Your task to perform on an android device: toggle priority inbox in the gmail app Image 0: 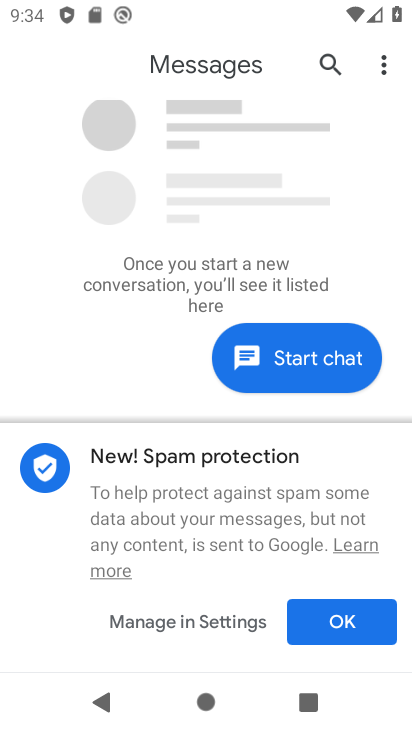
Step 0: press home button
Your task to perform on an android device: toggle priority inbox in the gmail app Image 1: 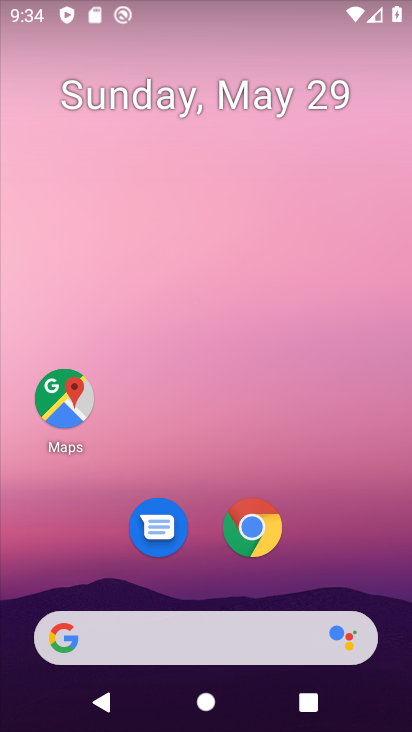
Step 1: drag from (334, 529) to (336, 161)
Your task to perform on an android device: toggle priority inbox in the gmail app Image 2: 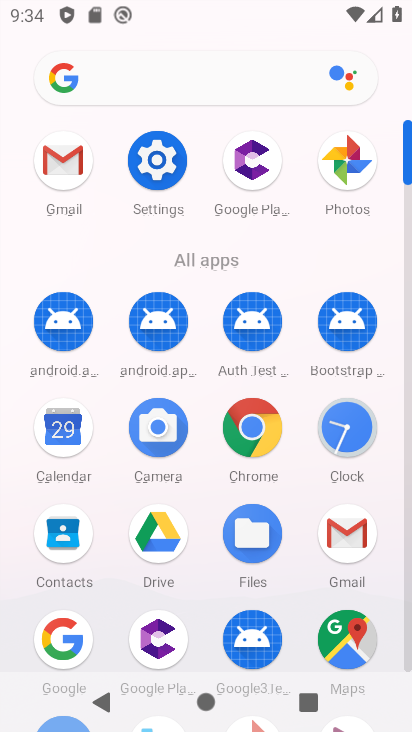
Step 2: click (73, 159)
Your task to perform on an android device: toggle priority inbox in the gmail app Image 3: 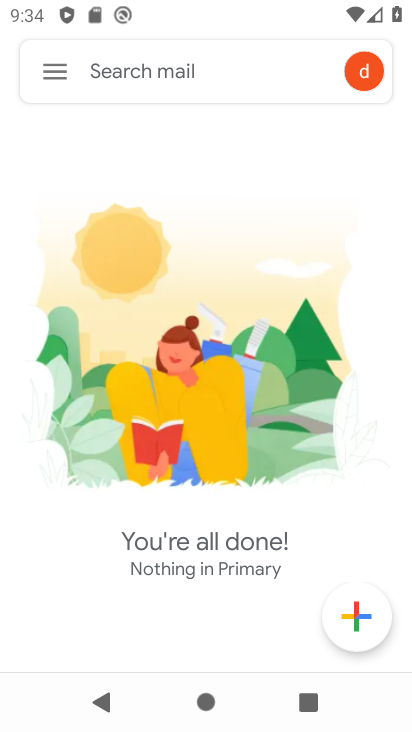
Step 3: click (73, 66)
Your task to perform on an android device: toggle priority inbox in the gmail app Image 4: 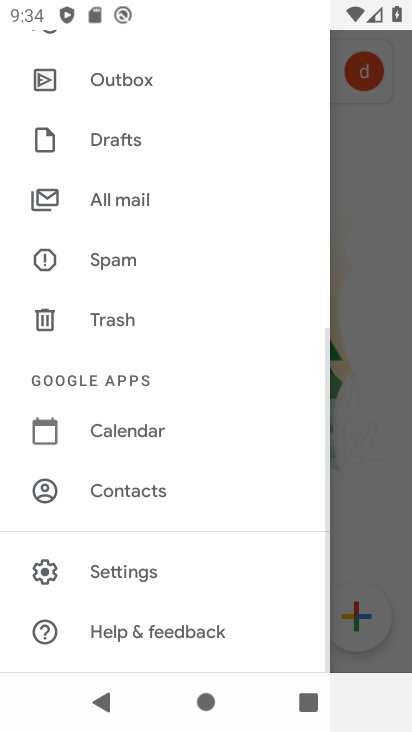
Step 4: click (147, 568)
Your task to perform on an android device: toggle priority inbox in the gmail app Image 5: 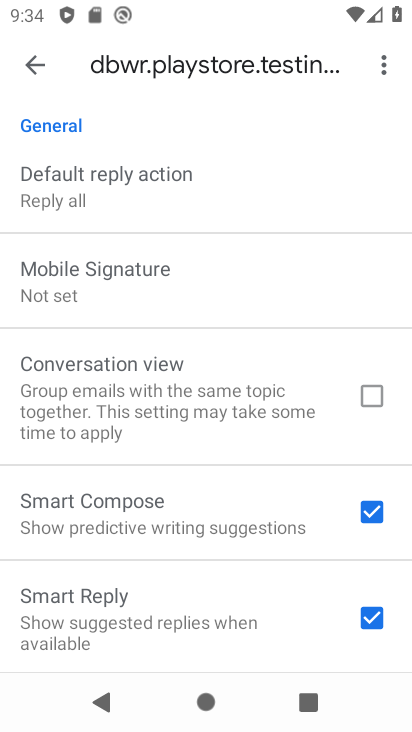
Step 5: drag from (211, 221) to (163, 641)
Your task to perform on an android device: toggle priority inbox in the gmail app Image 6: 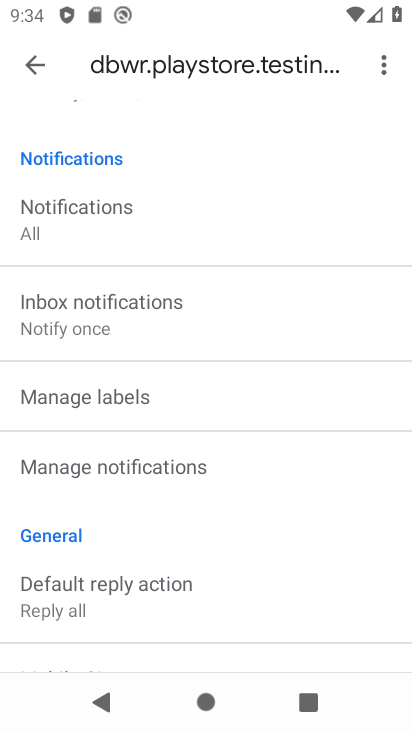
Step 6: drag from (198, 143) to (178, 599)
Your task to perform on an android device: toggle priority inbox in the gmail app Image 7: 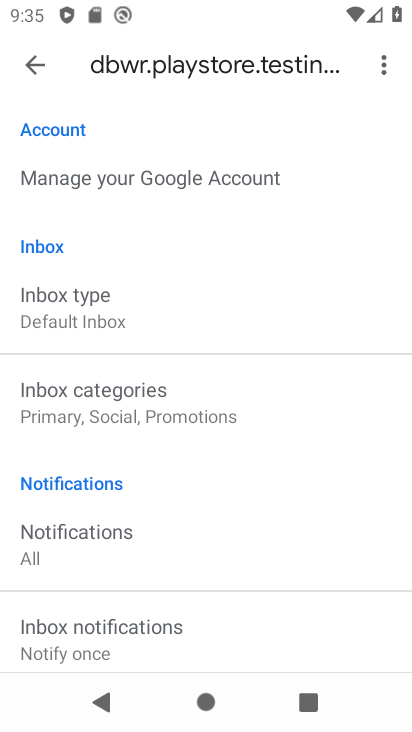
Step 7: click (98, 309)
Your task to perform on an android device: toggle priority inbox in the gmail app Image 8: 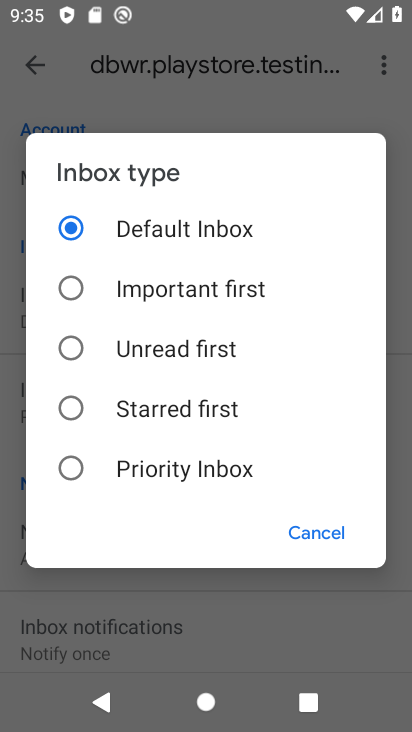
Step 8: click (139, 463)
Your task to perform on an android device: toggle priority inbox in the gmail app Image 9: 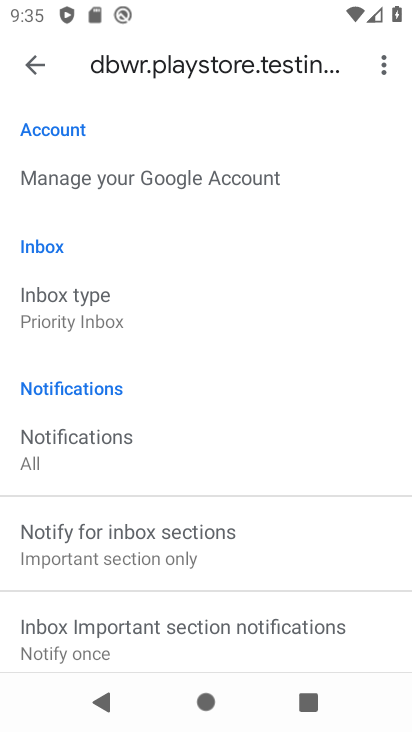
Step 9: task complete